Your task to perform on an android device: Search for Mexican restaurants on Maps Image 0: 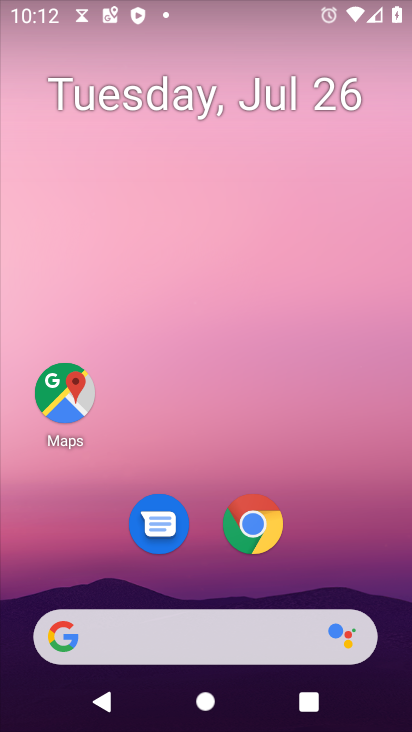
Step 0: press home button
Your task to perform on an android device: Search for Mexican restaurants on Maps Image 1: 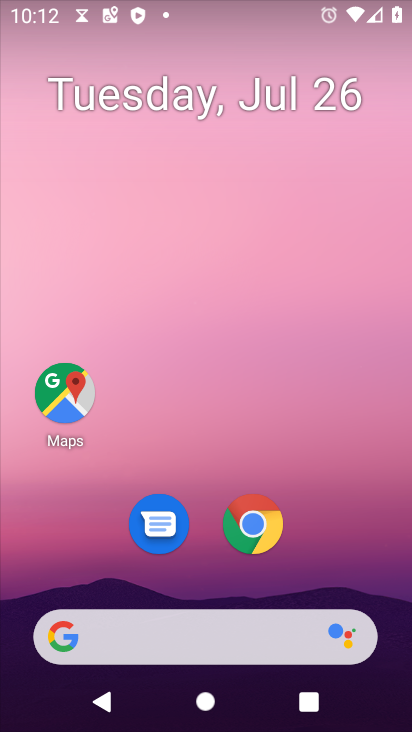
Step 1: click (67, 396)
Your task to perform on an android device: Search for Mexican restaurants on Maps Image 2: 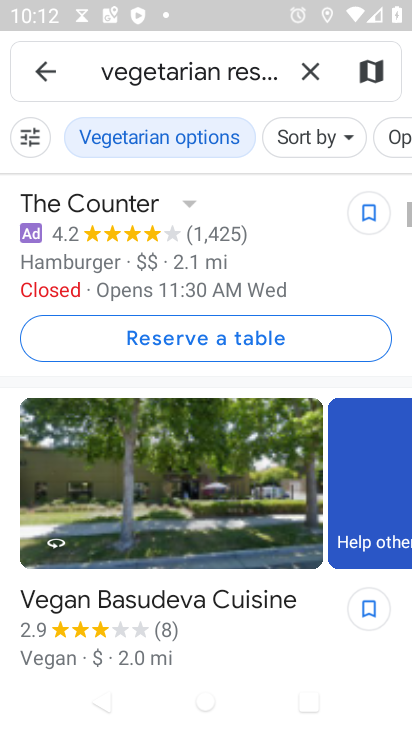
Step 2: click (310, 67)
Your task to perform on an android device: Search for Mexican restaurants on Maps Image 3: 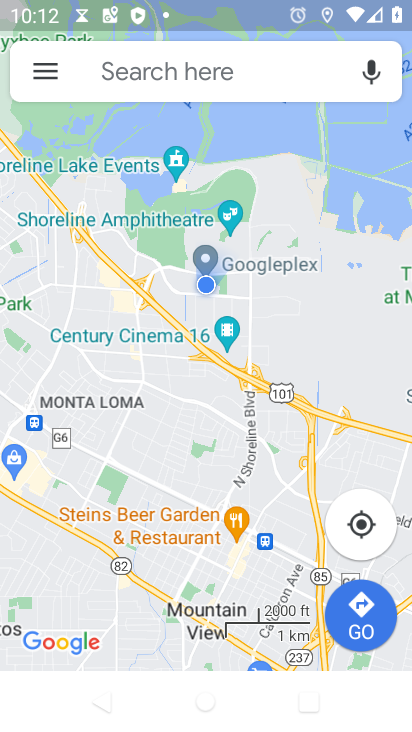
Step 3: click (162, 68)
Your task to perform on an android device: Search for Mexican restaurants on Maps Image 4: 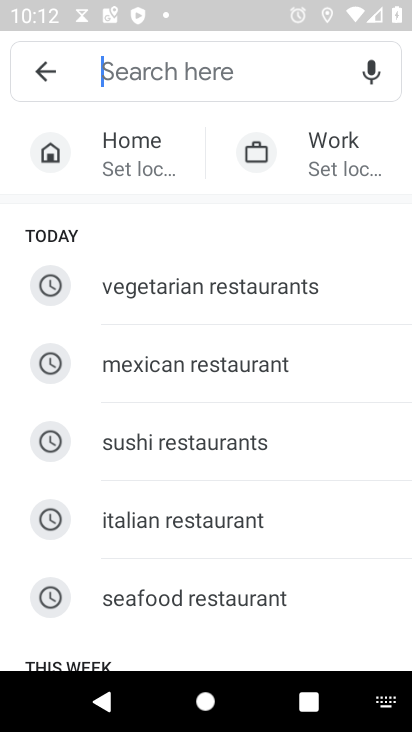
Step 4: click (209, 371)
Your task to perform on an android device: Search for Mexican restaurants on Maps Image 5: 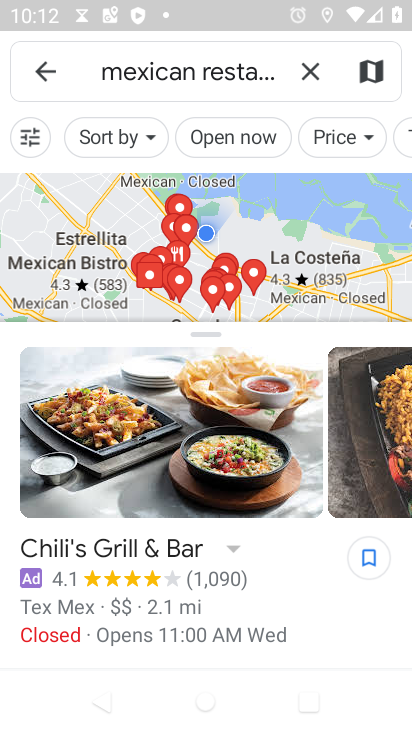
Step 5: task complete